Your task to perform on an android device: turn on location history Image 0: 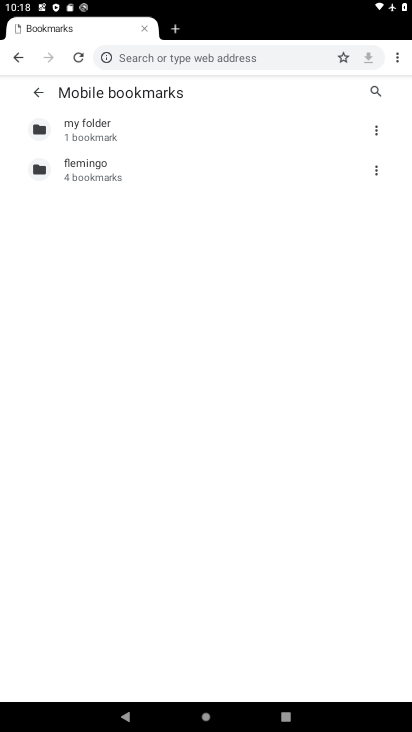
Step 0: task complete